Your task to perform on an android device: What's the news in Ecuador? Image 0: 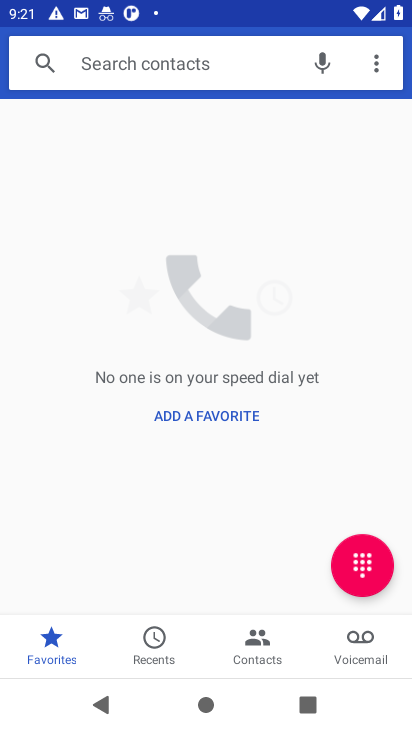
Step 0: press home button
Your task to perform on an android device: What's the news in Ecuador? Image 1: 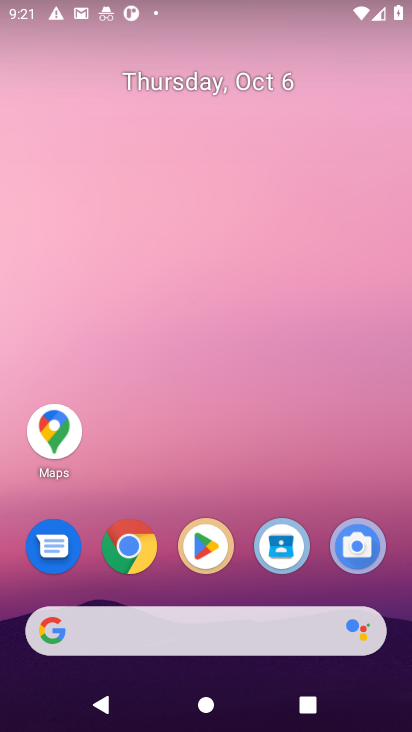
Step 1: click (126, 544)
Your task to perform on an android device: What's the news in Ecuador? Image 2: 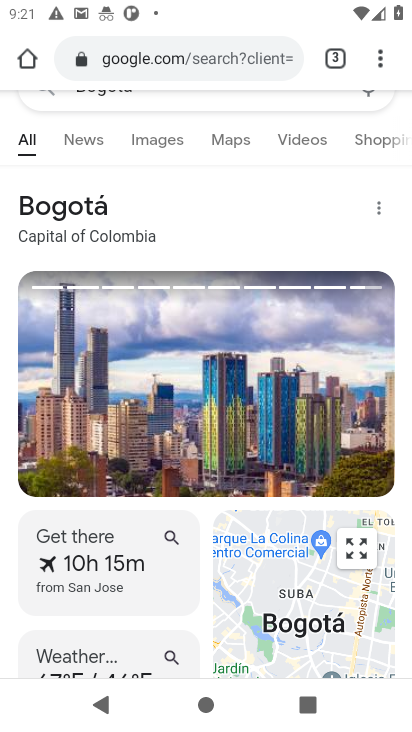
Step 2: click (181, 44)
Your task to perform on an android device: What's the news in Ecuador? Image 3: 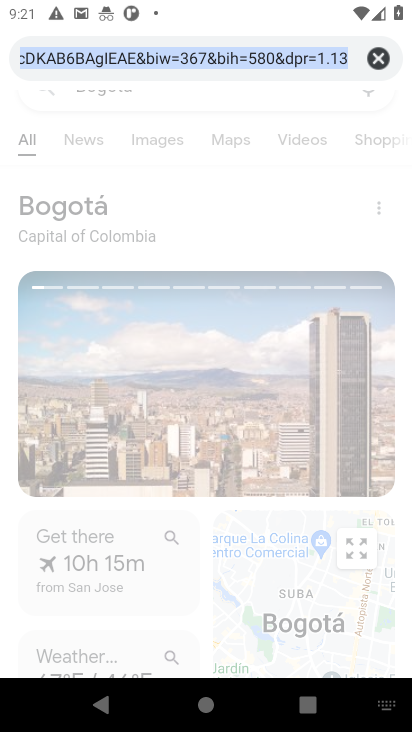
Step 3: click (377, 55)
Your task to perform on an android device: What's the news in Ecuador? Image 4: 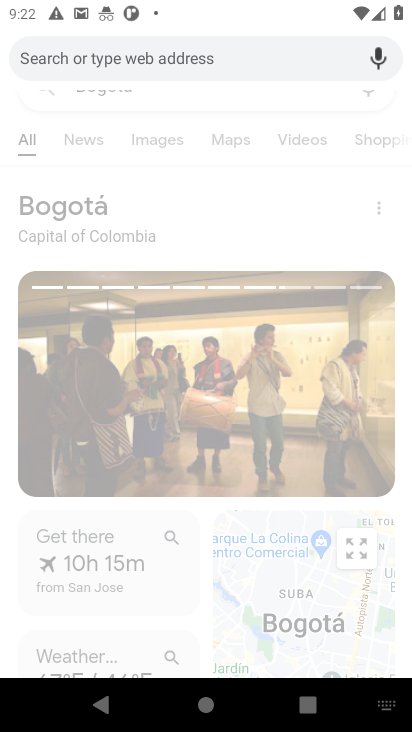
Step 4: type "news in Ecuador?"
Your task to perform on an android device: What's the news in Ecuador? Image 5: 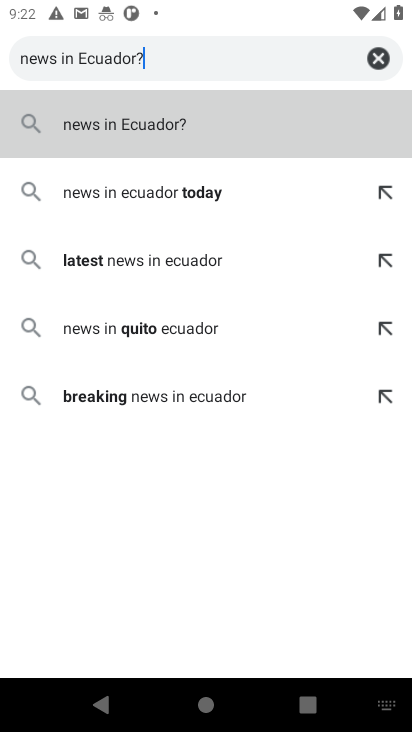
Step 5: click (109, 125)
Your task to perform on an android device: What's the news in Ecuador? Image 6: 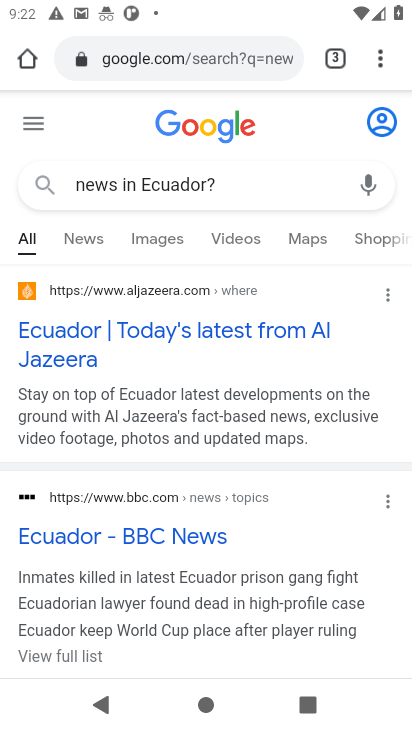
Step 6: click (62, 328)
Your task to perform on an android device: What's the news in Ecuador? Image 7: 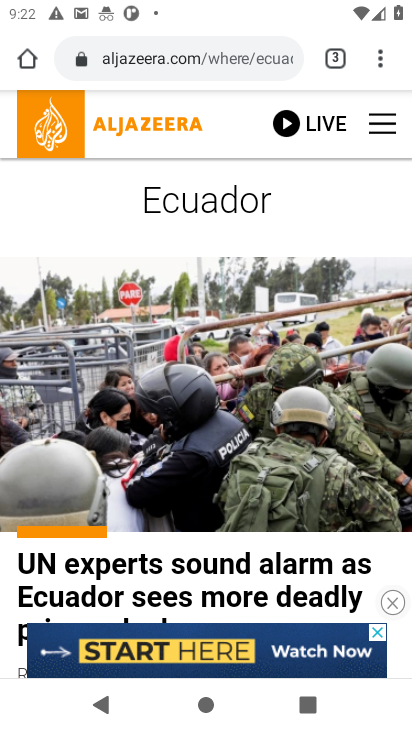
Step 7: click (393, 598)
Your task to perform on an android device: What's the news in Ecuador? Image 8: 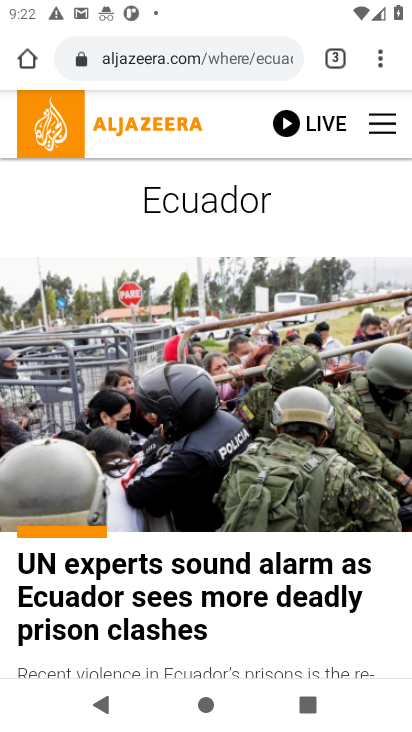
Step 8: task complete